Your task to perform on an android device: What's the weather today? Image 0: 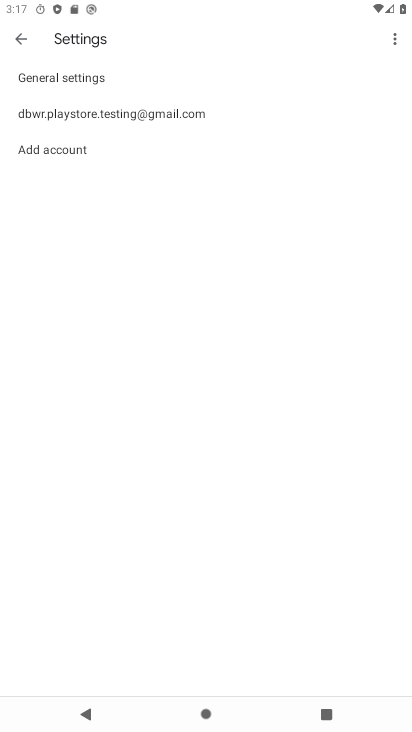
Step 0: press home button
Your task to perform on an android device: What's the weather today? Image 1: 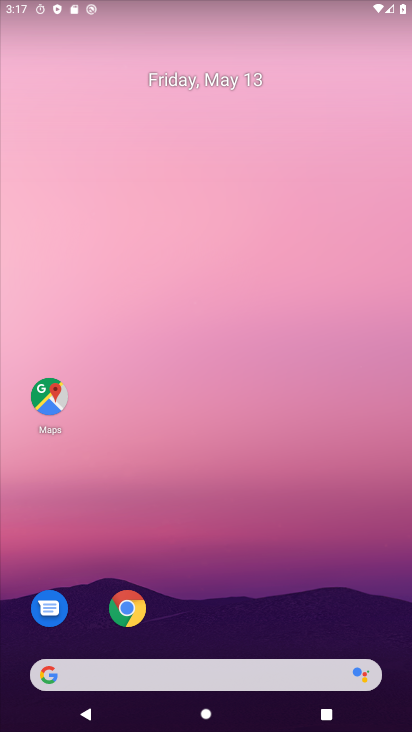
Step 1: click (116, 611)
Your task to perform on an android device: What's the weather today? Image 2: 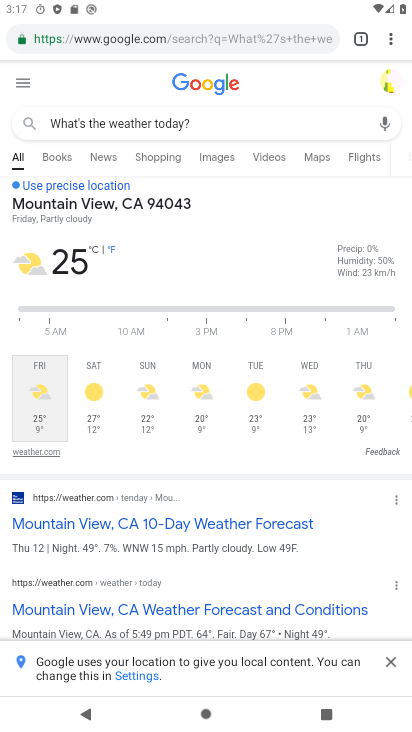
Step 2: task complete